Your task to perform on an android device: refresh tabs in the chrome app Image 0: 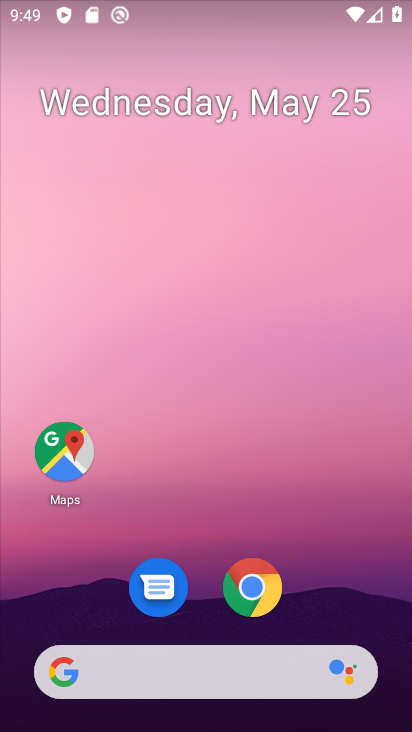
Step 0: click (255, 582)
Your task to perform on an android device: refresh tabs in the chrome app Image 1: 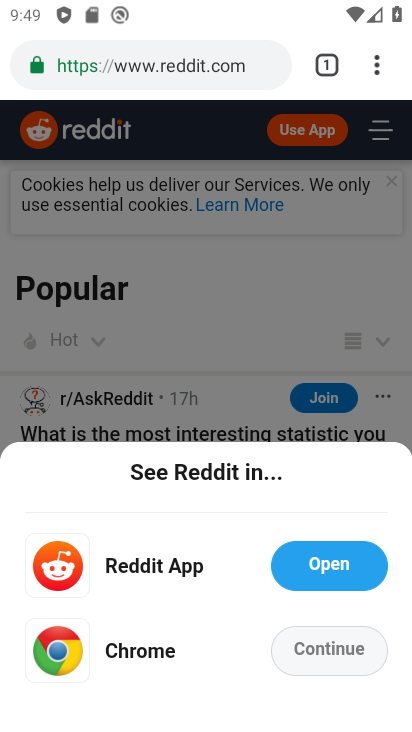
Step 1: click (387, 66)
Your task to perform on an android device: refresh tabs in the chrome app Image 2: 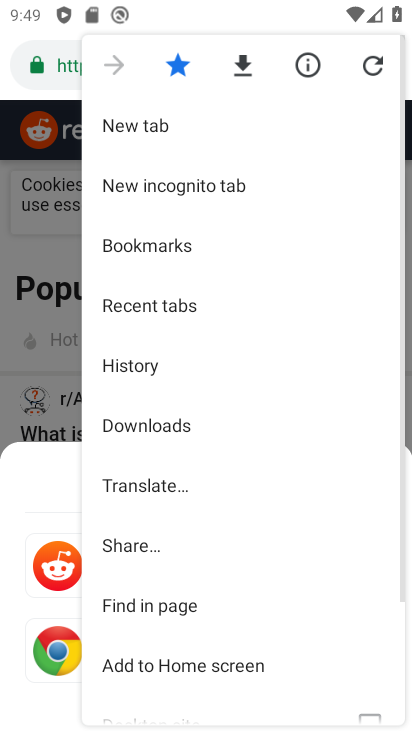
Step 2: click (373, 64)
Your task to perform on an android device: refresh tabs in the chrome app Image 3: 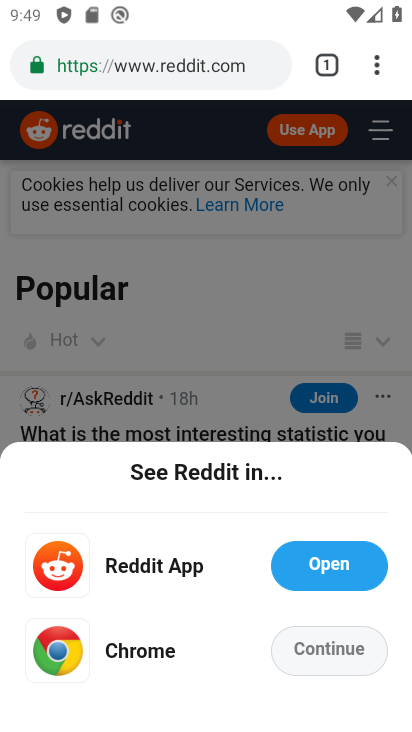
Step 3: task complete